Your task to perform on an android device: turn on the 24-hour format for clock Image 0: 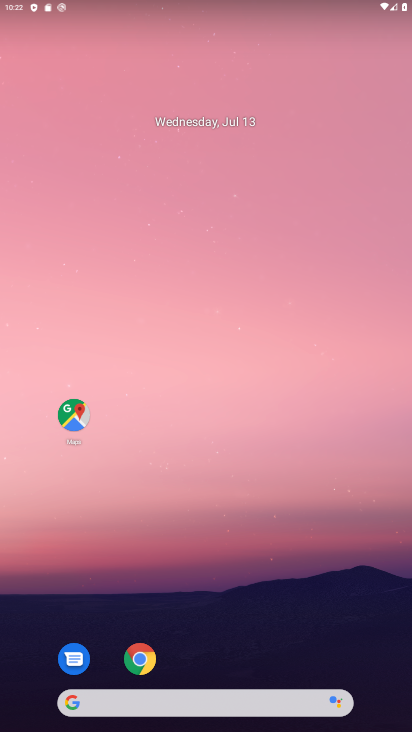
Step 0: drag from (322, 663) to (252, 165)
Your task to perform on an android device: turn on the 24-hour format for clock Image 1: 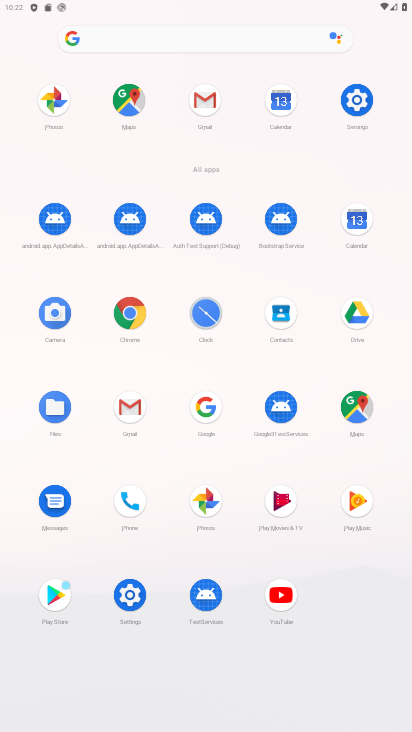
Step 1: click (209, 316)
Your task to perform on an android device: turn on the 24-hour format for clock Image 2: 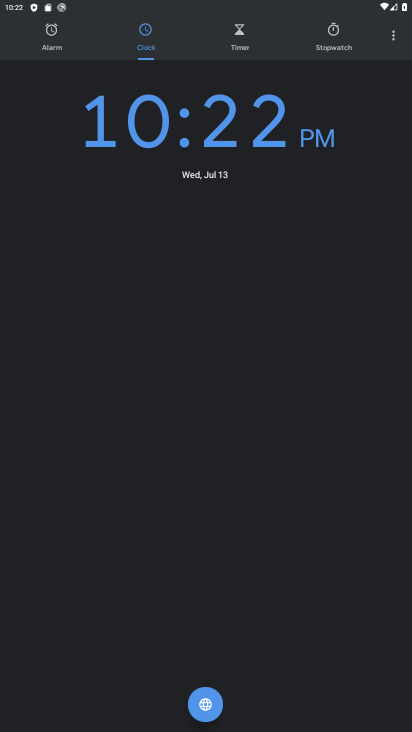
Step 2: click (393, 40)
Your task to perform on an android device: turn on the 24-hour format for clock Image 3: 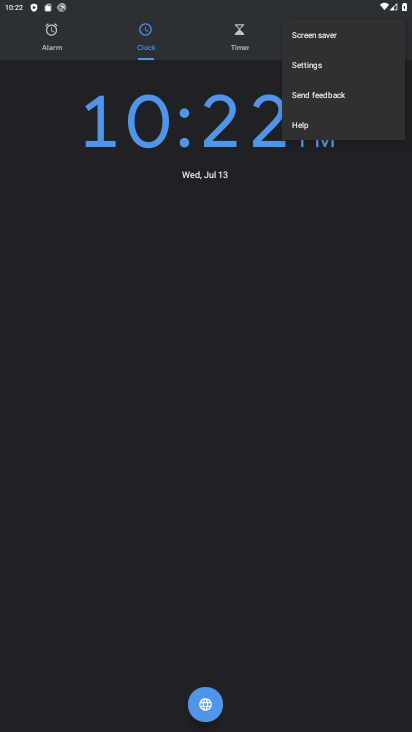
Step 3: click (302, 62)
Your task to perform on an android device: turn on the 24-hour format for clock Image 4: 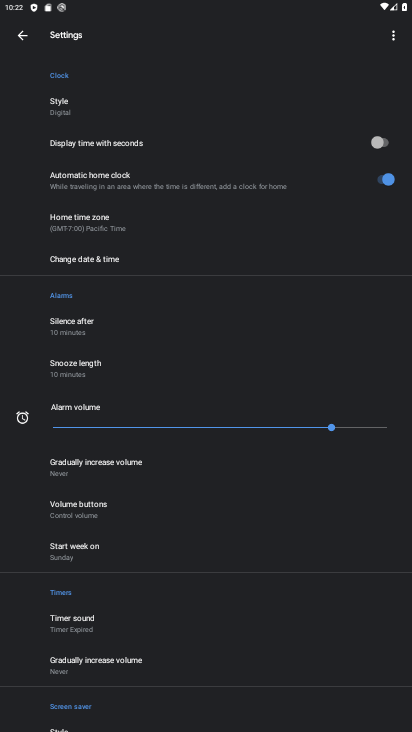
Step 4: click (107, 267)
Your task to perform on an android device: turn on the 24-hour format for clock Image 5: 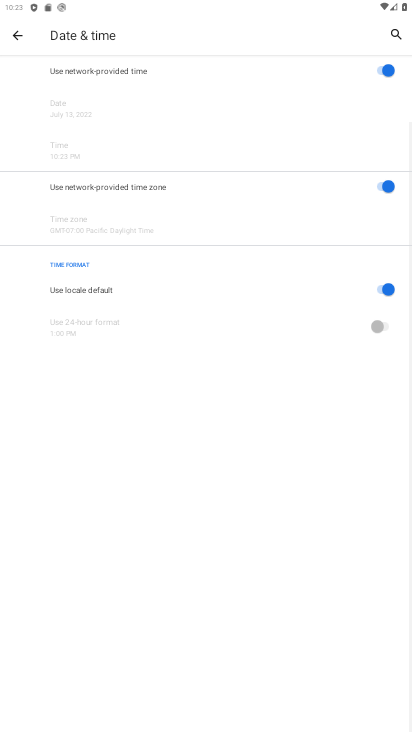
Step 5: click (381, 287)
Your task to perform on an android device: turn on the 24-hour format for clock Image 6: 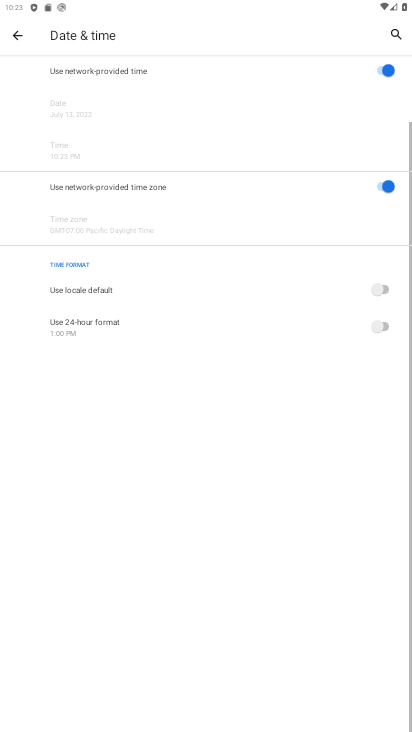
Step 6: click (387, 324)
Your task to perform on an android device: turn on the 24-hour format for clock Image 7: 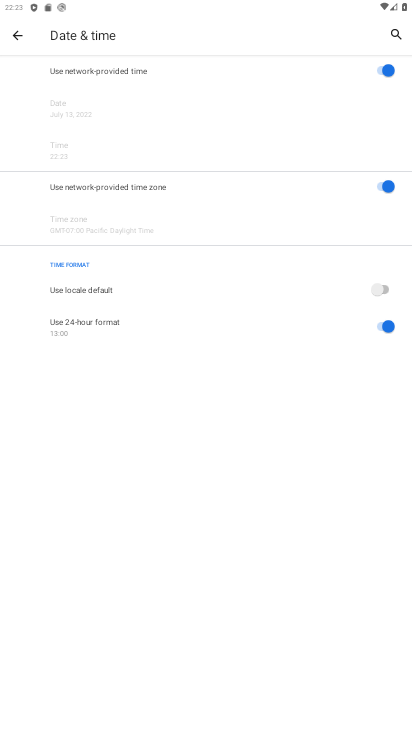
Step 7: task complete